Your task to perform on an android device: Search for "bose quietcomfort 35" on costco, select the first entry, add it to the cart, then select checkout. Image 0: 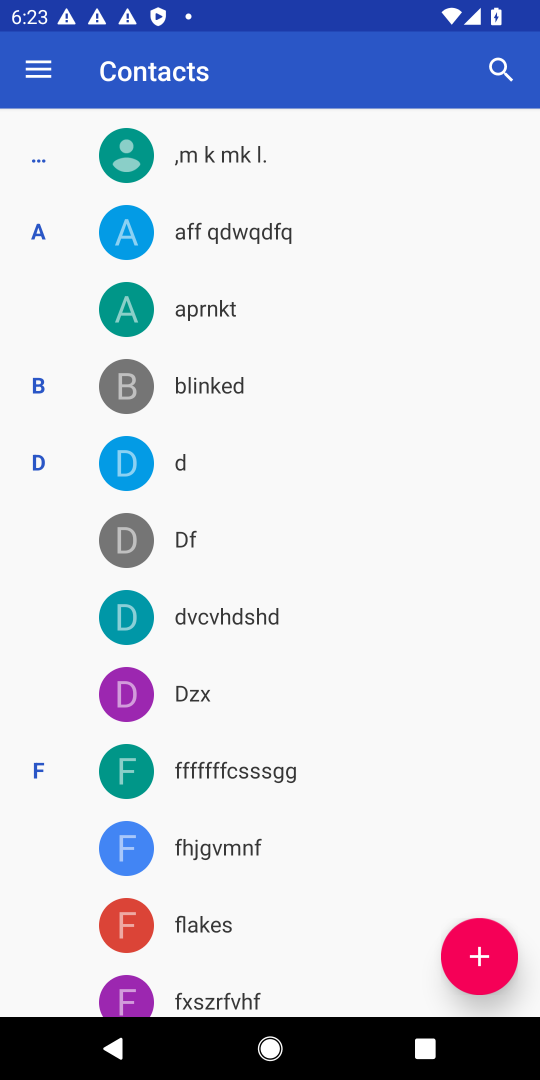
Step 0: press home button
Your task to perform on an android device: Search for "bose quietcomfort 35" on costco, select the first entry, add it to the cart, then select checkout. Image 1: 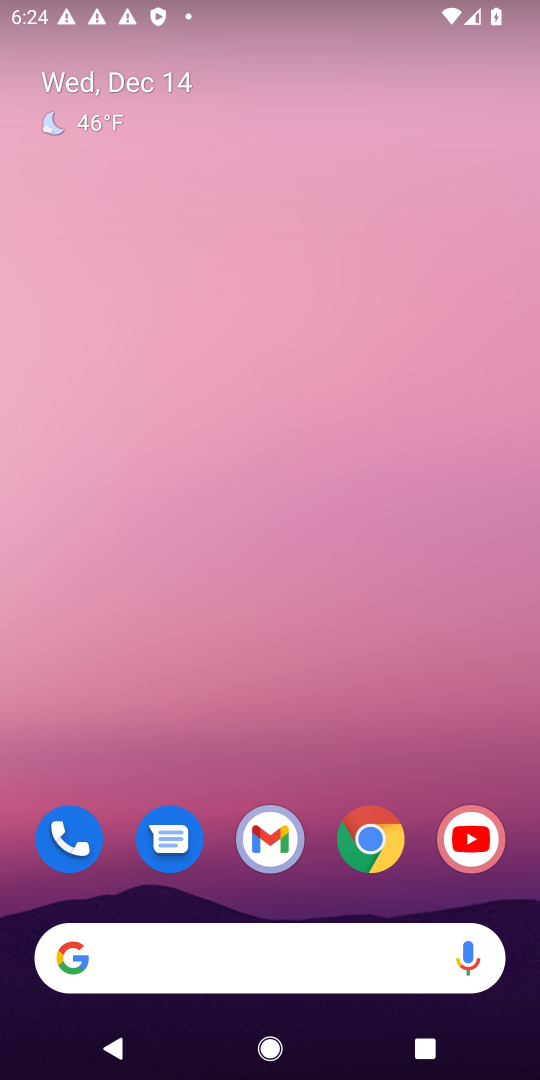
Step 1: click (366, 855)
Your task to perform on an android device: Search for "bose quietcomfort 35" on costco, select the first entry, add it to the cart, then select checkout. Image 2: 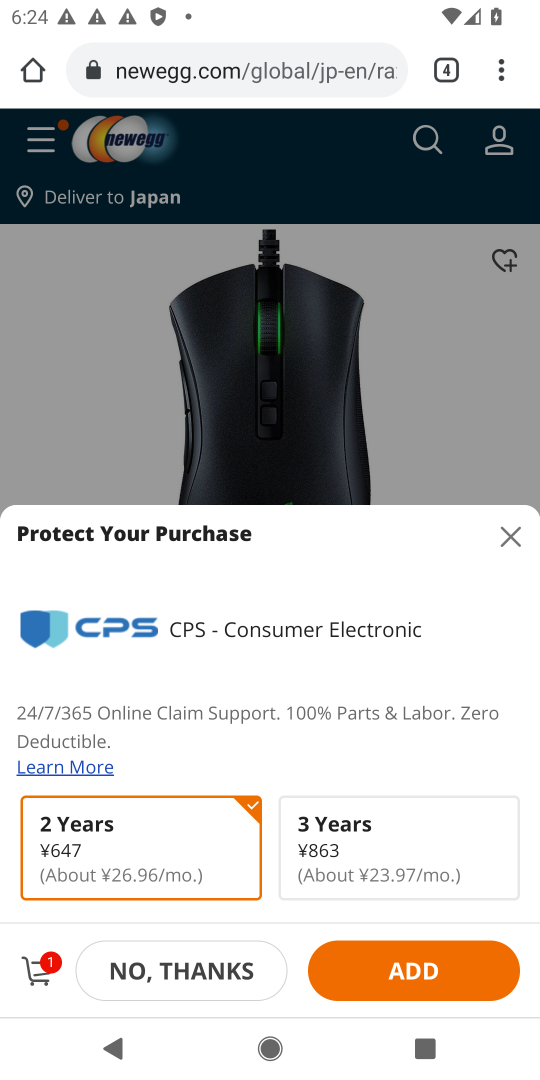
Step 2: press home button
Your task to perform on an android device: Search for "bose quietcomfort 35" on costco, select the first entry, add it to the cart, then select checkout. Image 3: 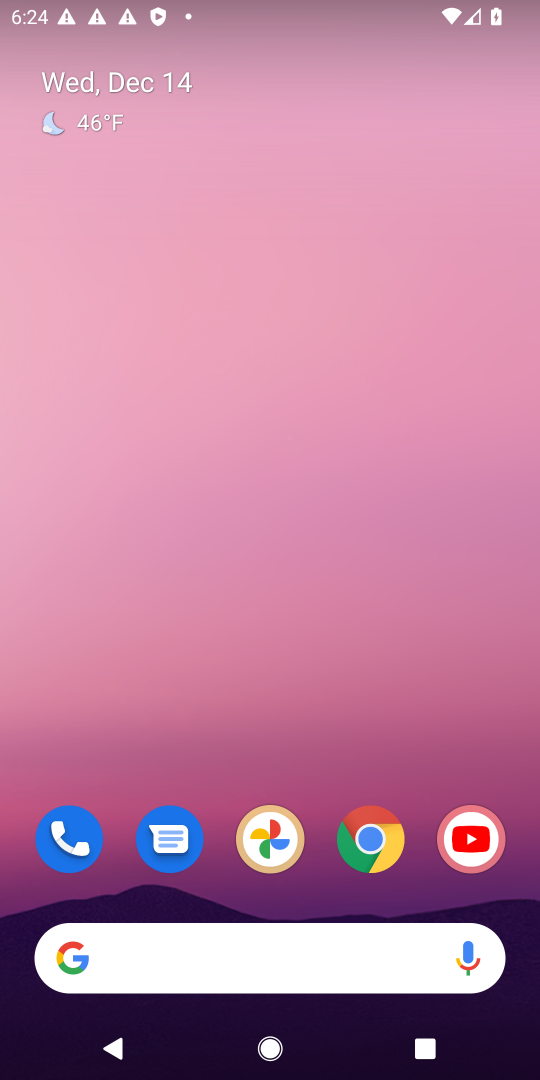
Step 3: click (395, 839)
Your task to perform on an android device: Search for "bose quietcomfort 35" on costco, select the first entry, add it to the cart, then select checkout. Image 4: 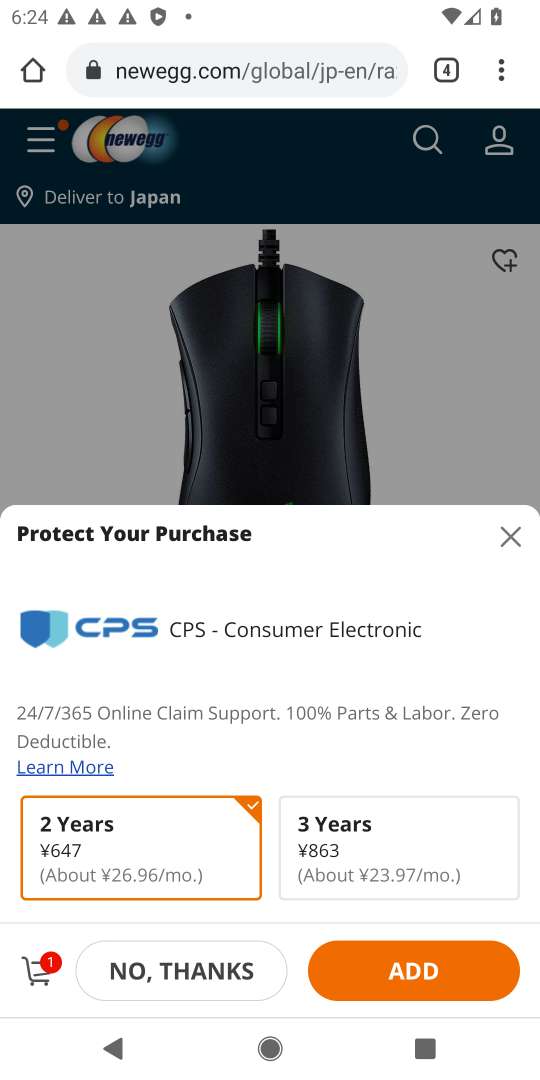
Step 4: click (158, 77)
Your task to perform on an android device: Search for "bose quietcomfort 35" on costco, select the first entry, add it to the cart, then select checkout. Image 5: 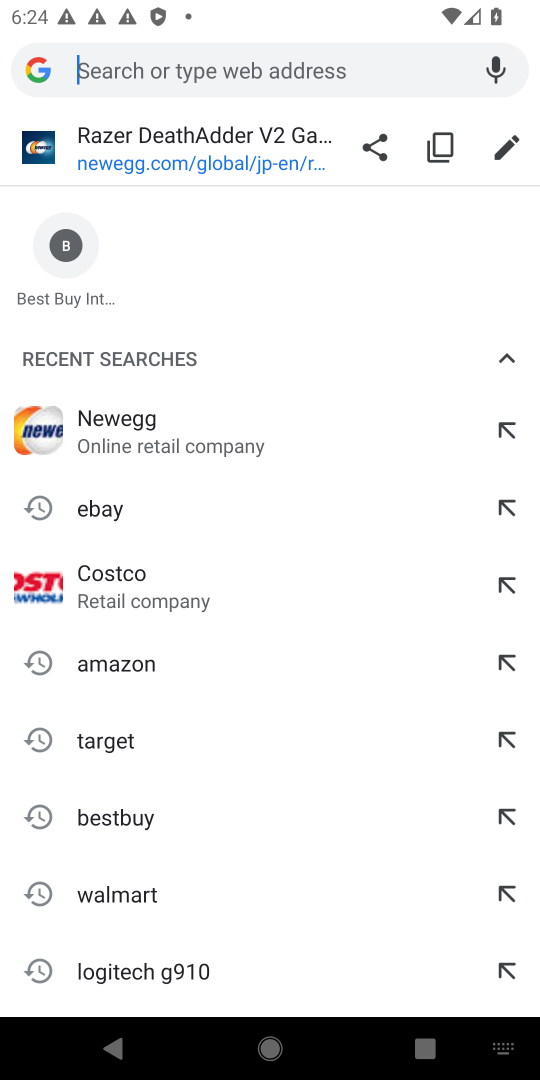
Step 5: type "costco"
Your task to perform on an android device: Search for "bose quietcomfort 35" on costco, select the first entry, add it to the cart, then select checkout. Image 6: 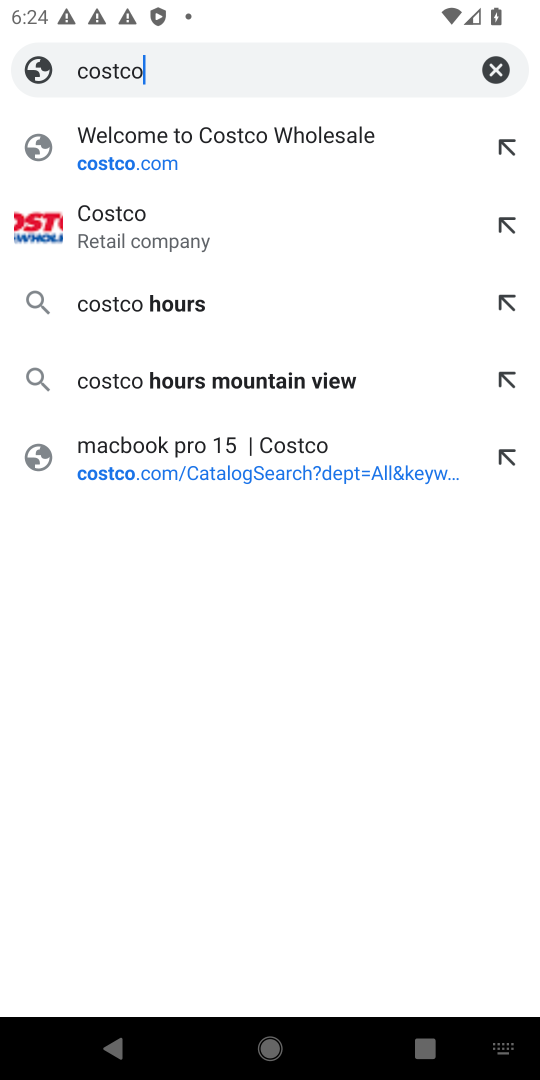
Step 6: click (195, 168)
Your task to perform on an android device: Search for "bose quietcomfort 35" on costco, select the first entry, add it to the cart, then select checkout. Image 7: 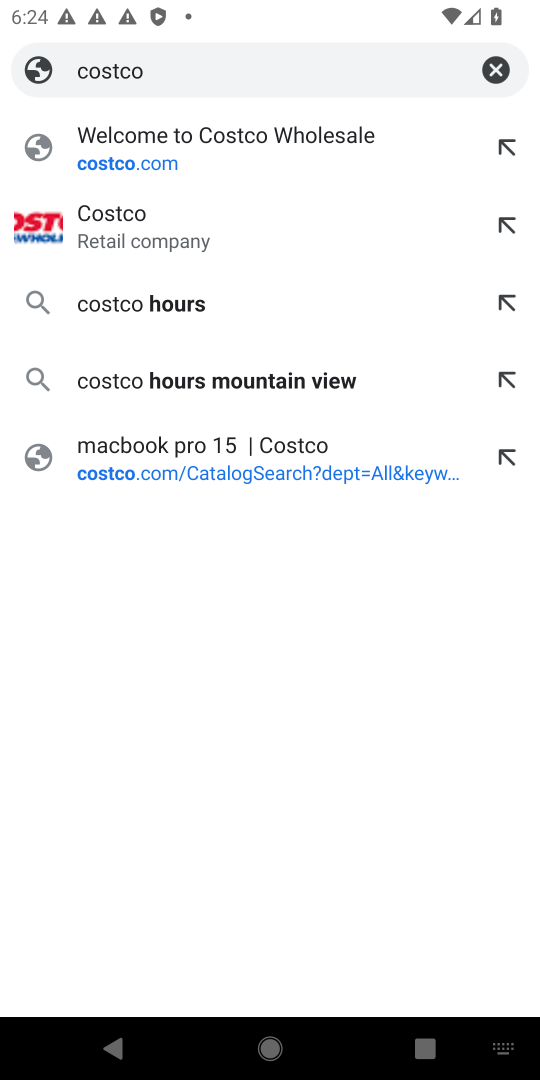
Step 7: click (195, 168)
Your task to perform on an android device: Search for "bose quietcomfort 35" on costco, select the first entry, add it to the cart, then select checkout. Image 8: 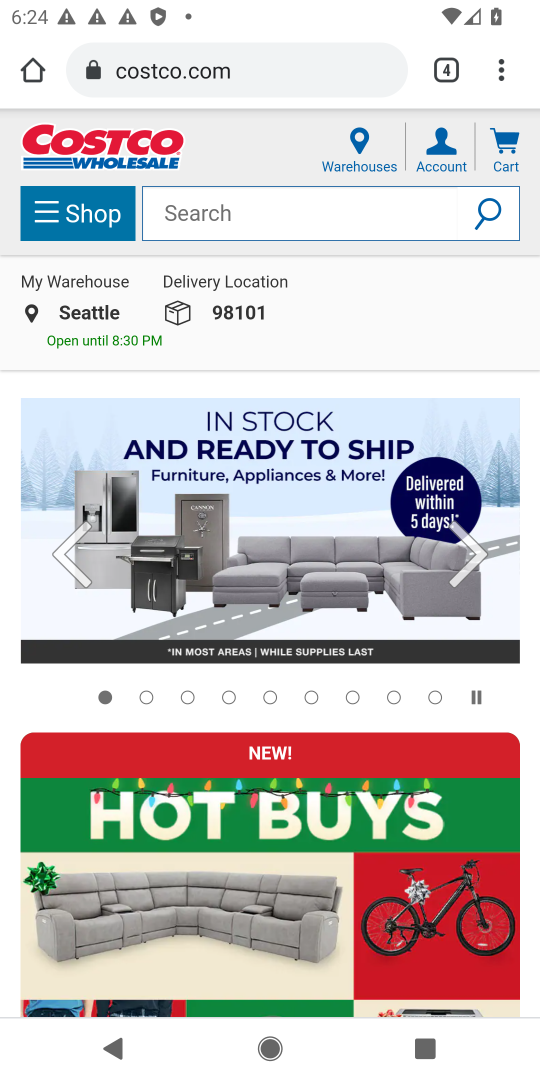
Step 8: click (244, 223)
Your task to perform on an android device: Search for "bose quietcomfort 35" on costco, select the first entry, add it to the cart, then select checkout. Image 9: 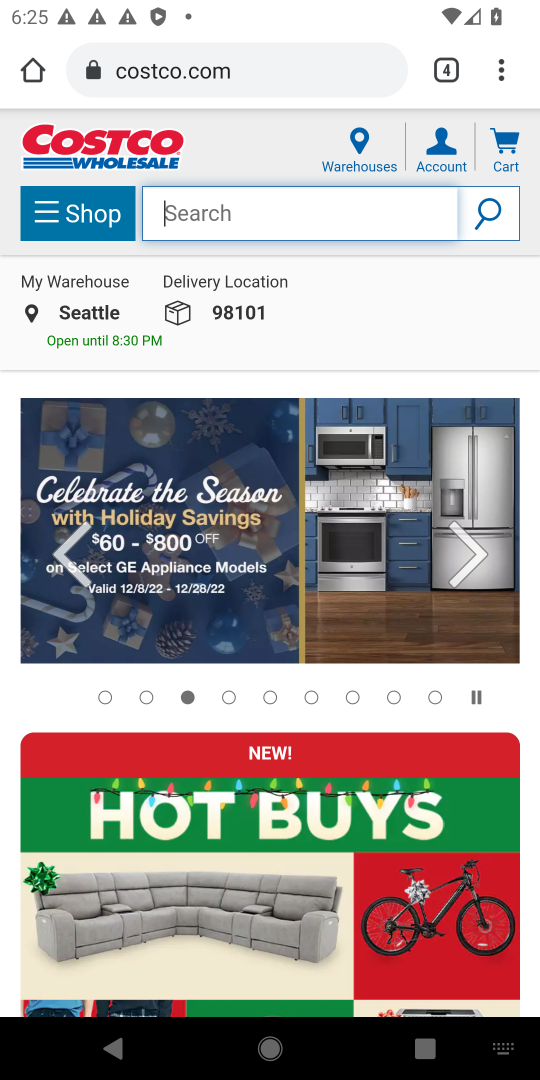
Step 9: type "bose quietcomfort"
Your task to perform on an android device: Search for "bose quietcomfort 35" on costco, select the first entry, add it to the cart, then select checkout. Image 10: 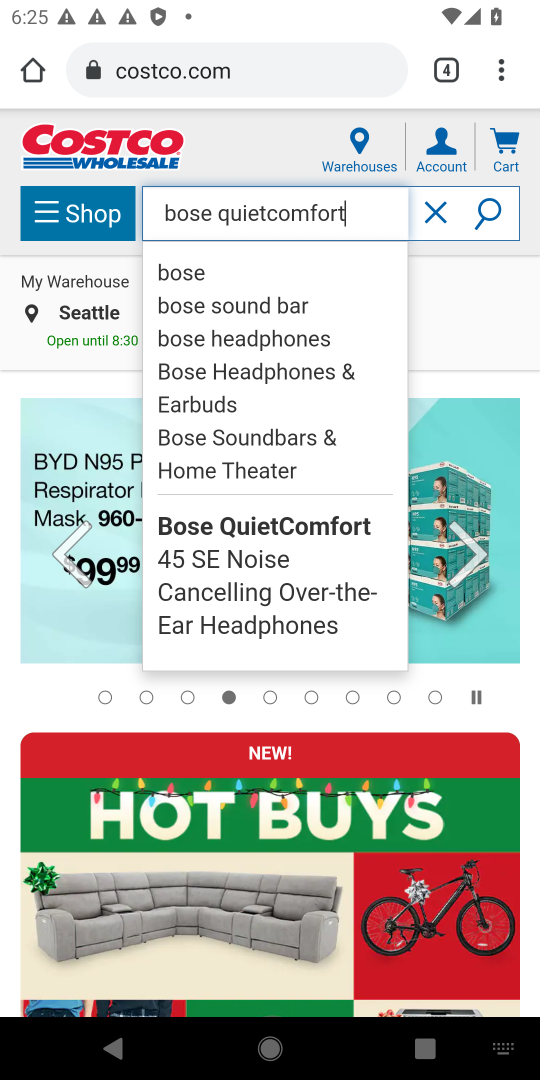
Step 10: click (466, 225)
Your task to perform on an android device: Search for "bose quietcomfort 35" on costco, select the first entry, add it to the cart, then select checkout. Image 11: 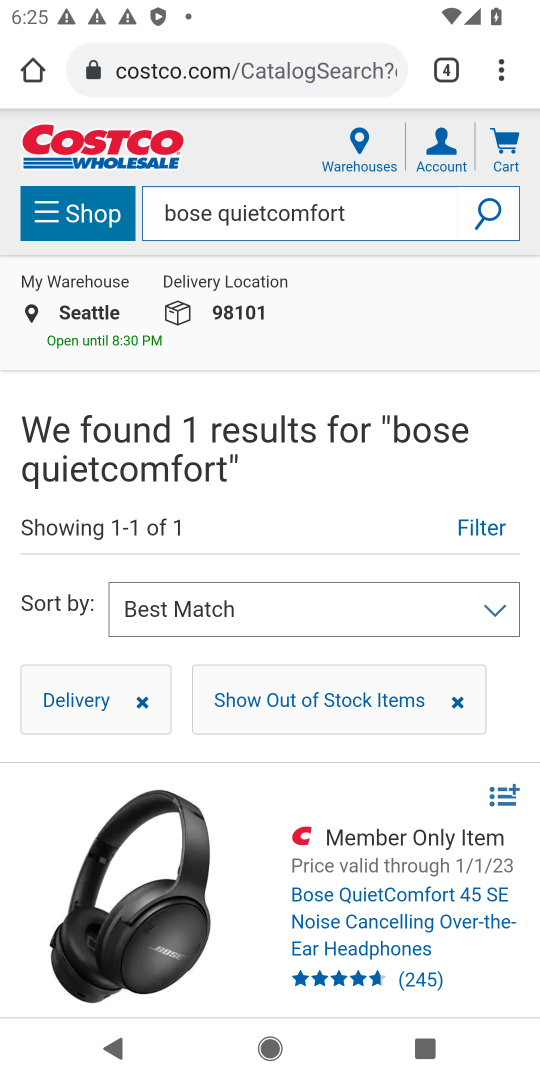
Step 11: click (351, 937)
Your task to perform on an android device: Search for "bose quietcomfort 35" on costco, select the first entry, add it to the cart, then select checkout. Image 12: 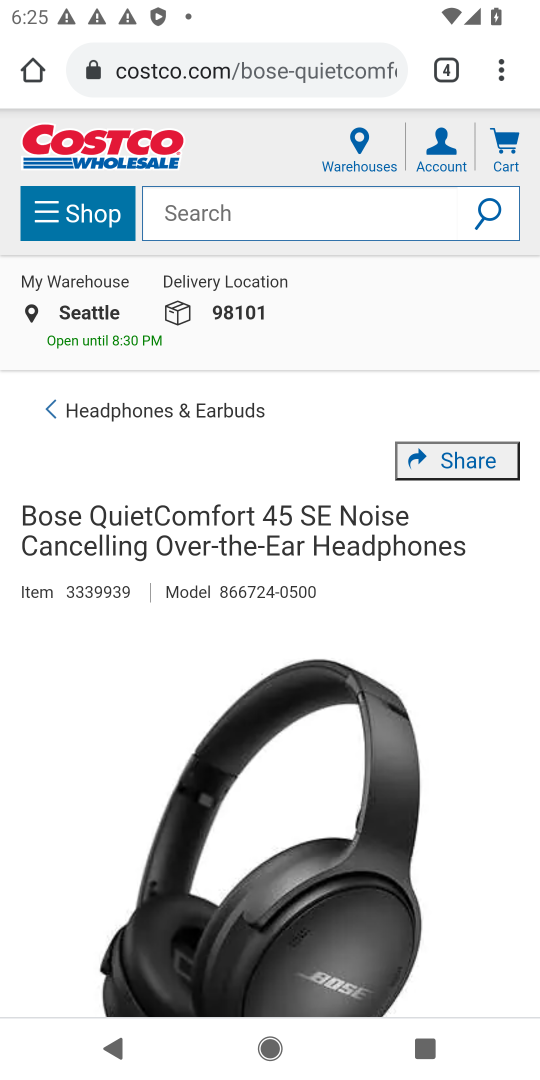
Step 12: drag from (336, 979) to (246, 378)
Your task to perform on an android device: Search for "bose quietcomfort 35" on costco, select the first entry, add it to the cart, then select checkout. Image 13: 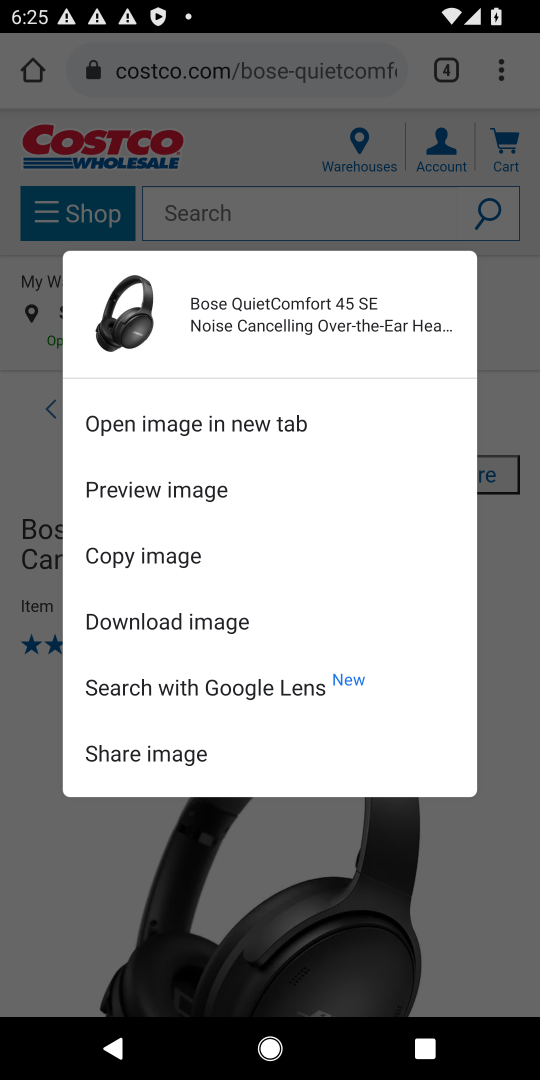
Step 13: click (257, 972)
Your task to perform on an android device: Search for "bose quietcomfort 35" on costco, select the first entry, add it to the cart, then select checkout. Image 14: 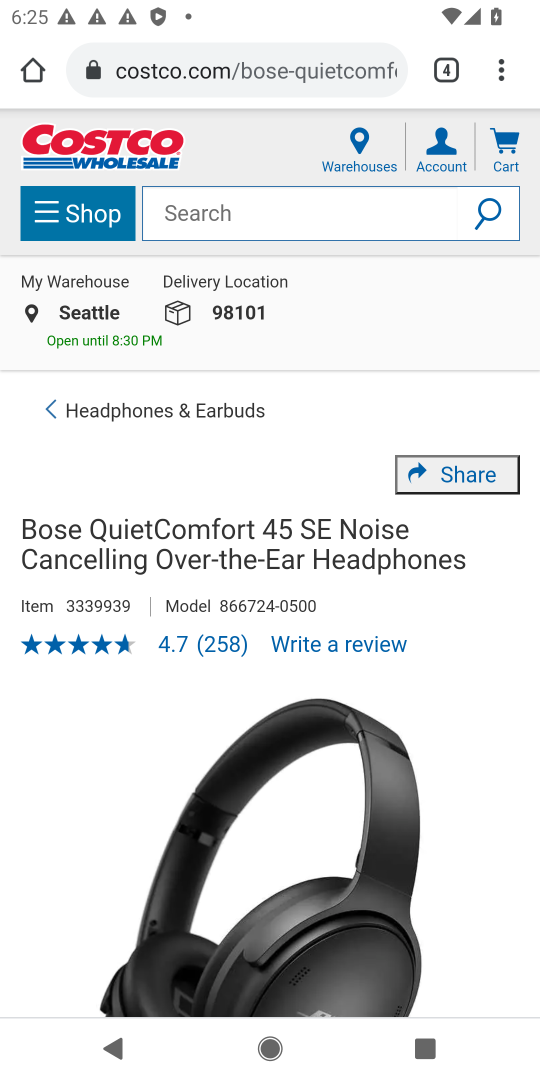
Step 14: task complete